Your task to perform on an android device: search for starred emails in the gmail app Image 0: 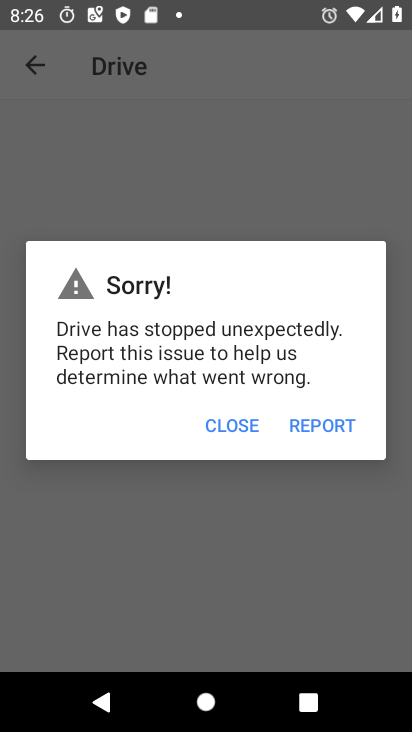
Step 0: press home button
Your task to perform on an android device: search for starred emails in the gmail app Image 1: 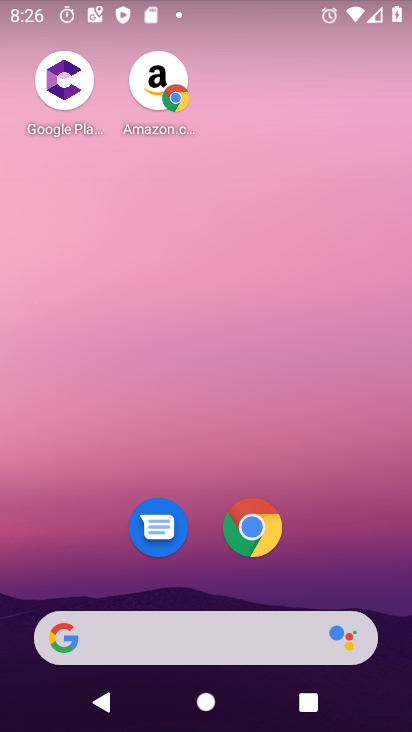
Step 1: drag from (120, 384) to (398, 392)
Your task to perform on an android device: search for starred emails in the gmail app Image 2: 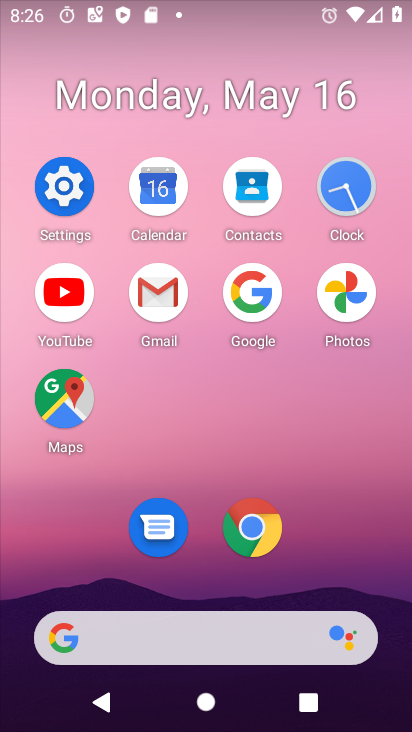
Step 2: click (163, 307)
Your task to perform on an android device: search for starred emails in the gmail app Image 3: 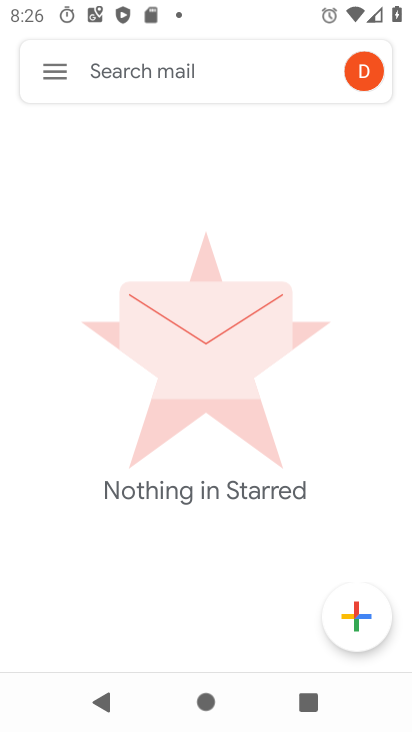
Step 3: task complete